Your task to perform on an android device: Find coffee shops on Maps Image 0: 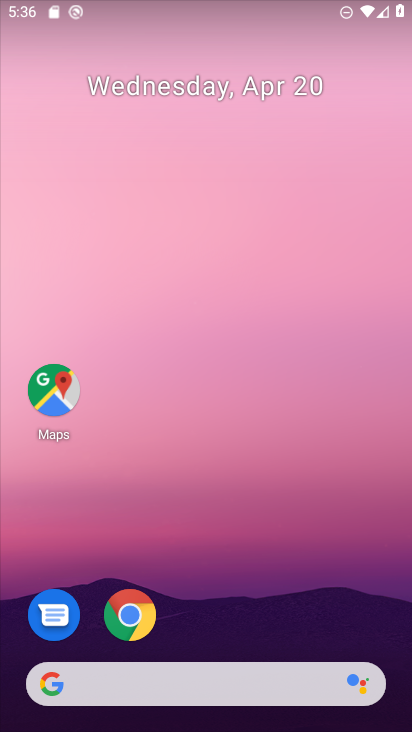
Step 0: click (51, 374)
Your task to perform on an android device: Find coffee shops on Maps Image 1: 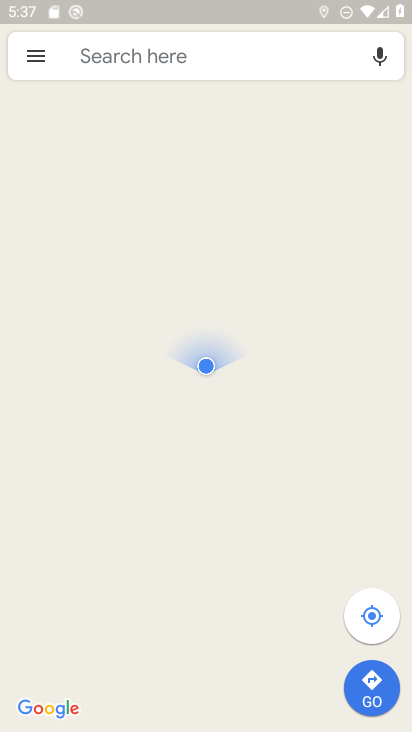
Step 1: click (202, 57)
Your task to perform on an android device: Find coffee shops on Maps Image 2: 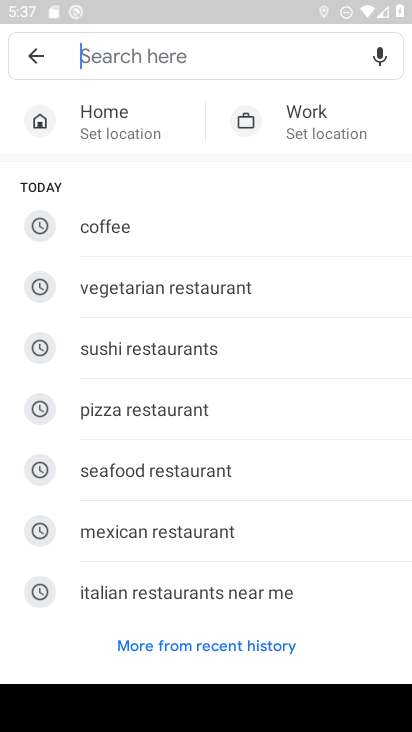
Step 2: type "coffee shops"
Your task to perform on an android device: Find coffee shops on Maps Image 3: 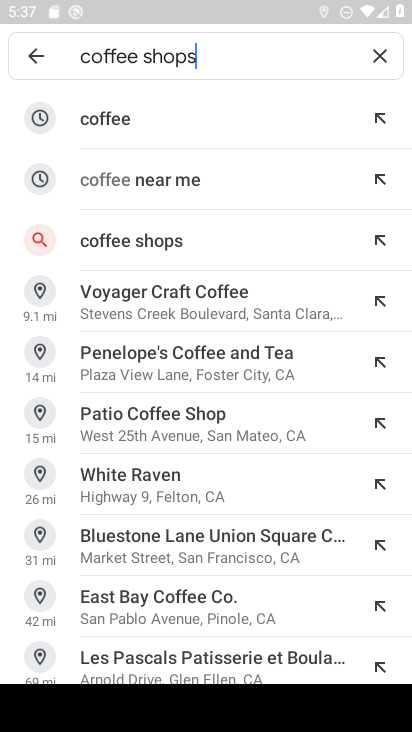
Step 3: click (156, 239)
Your task to perform on an android device: Find coffee shops on Maps Image 4: 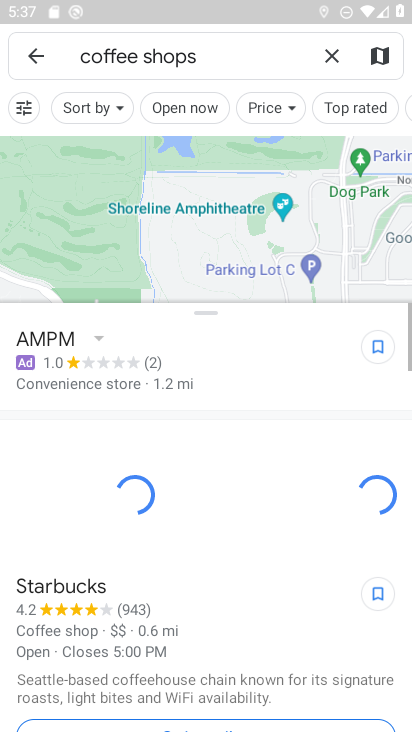
Step 4: task complete